Your task to perform on an android device: turn off improve location accuracy Image 0: 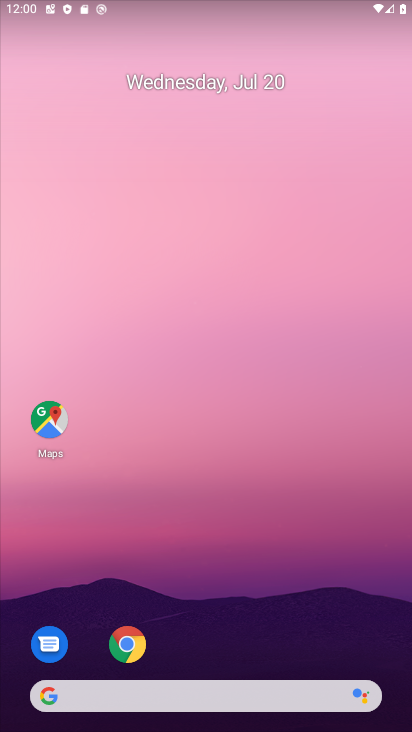
Step 0: press home button
Your task to perform on an android device: turn off improve location accuracy Image 1: 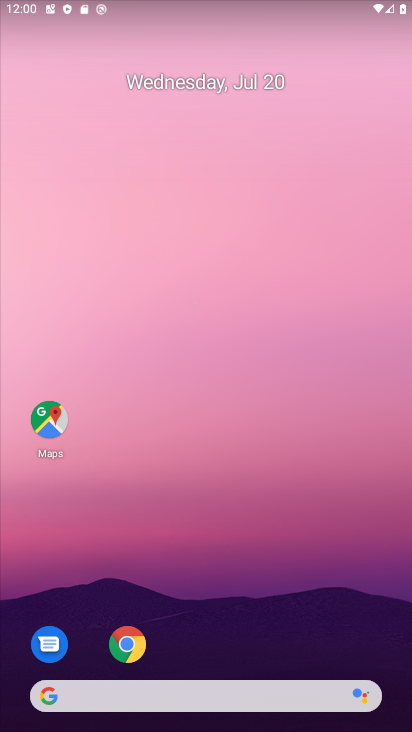
Step 1: drag from (269, 643) to (267, 6)
Your task to perform on an android device: turn off improve location accuracy Image 2: 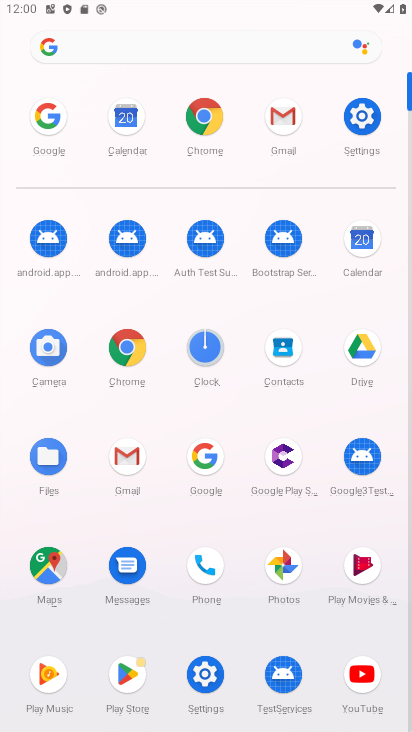
Step 2: click (225, 681)
Your task to perform on an android device: turn off improve location accuracy Image 3: 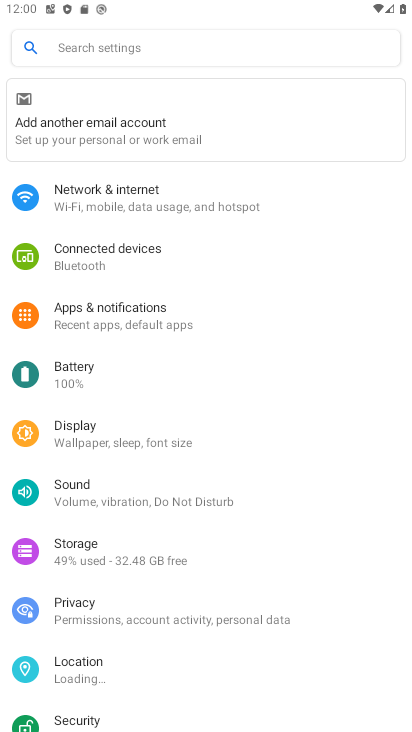
Step 3: click (225, 678)
Your task to perform on an android device: turn off improve location accuracy Image 4: 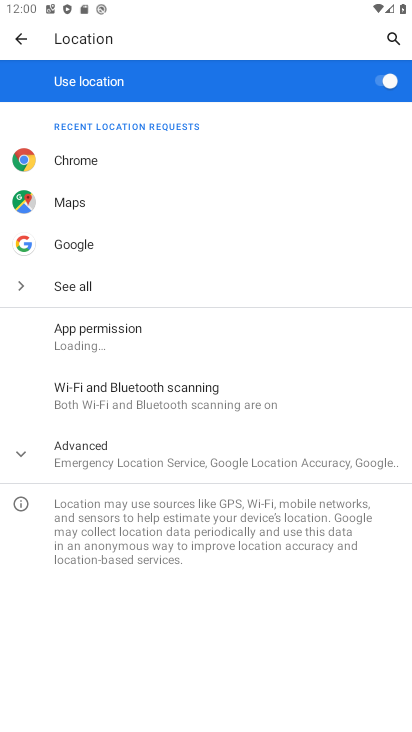
Step 4: click (189, 457)
Your task to perform on an android device: turn off improve location accuracy Image 5: 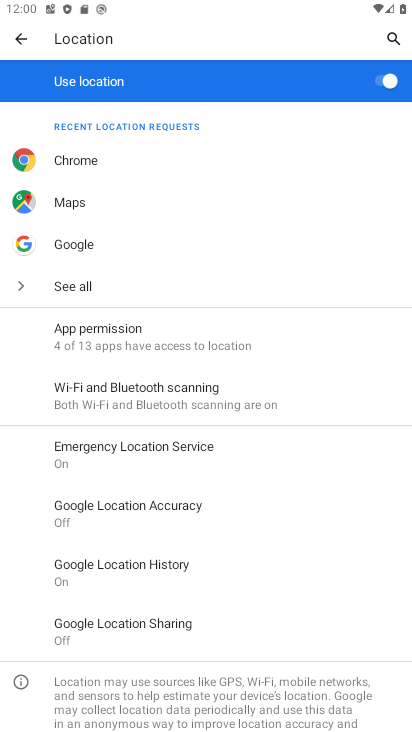
Step 5: click (165, 517)
Your task to perform on an android device: turn off improve location accuracy Image 6: 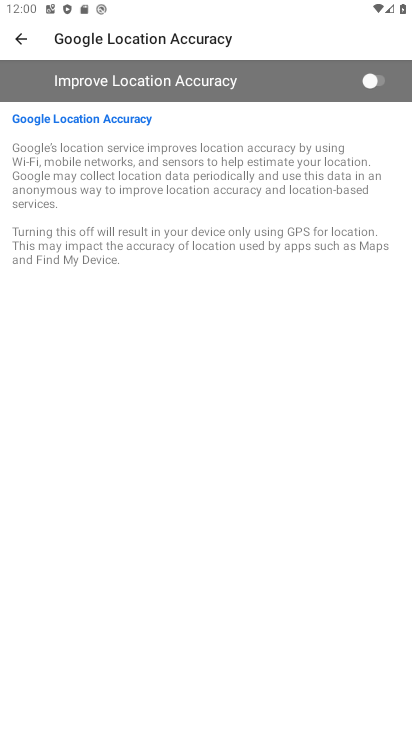
Step 6: click (281, 70)
Your task to perform on an android device: turn off improve location accuracy Image 7: 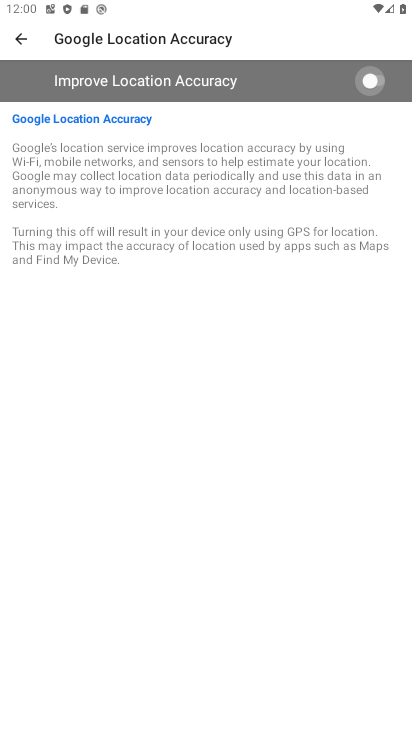
Step 7: click (281, 70)
Your task to perform on an android device: turn off improve location accuracy Image 8: 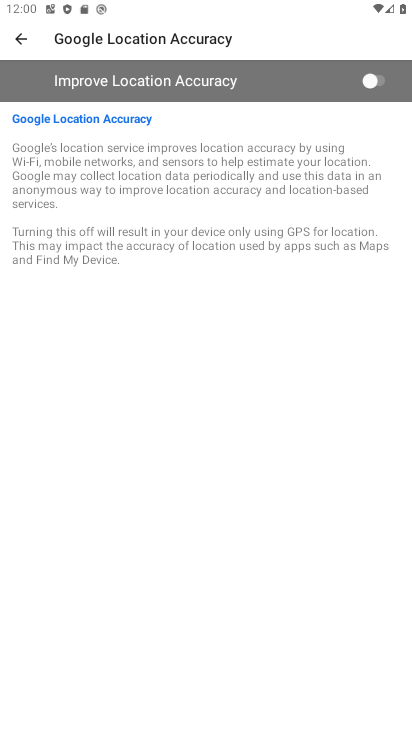
Step 8: task complete